Your task to perform on an android device: open a bookmark in the chrome app Image 0: 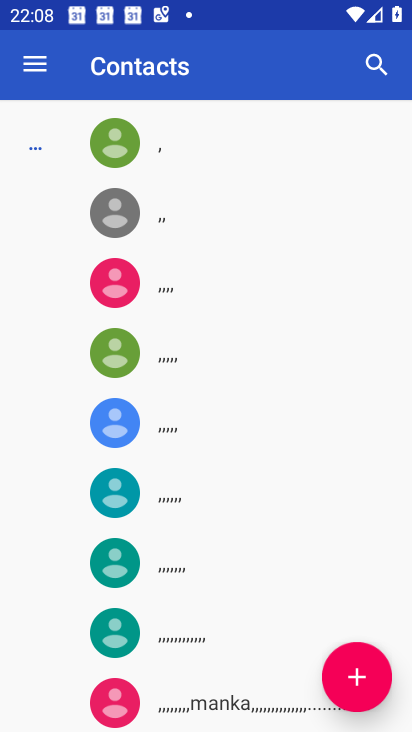
Step 0: press home button
Your task to perform on an android device: open a bookmark in the chrome app Image 1: 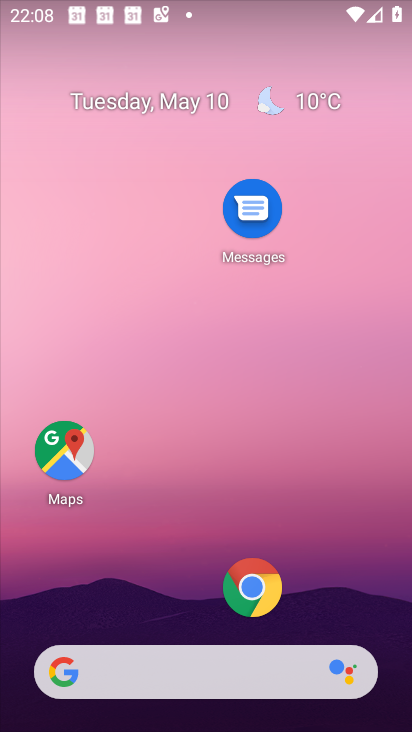
Step 1: click (257, 573)
Your task to perform on an android device: open a bookmark in the chrome app Image 2: 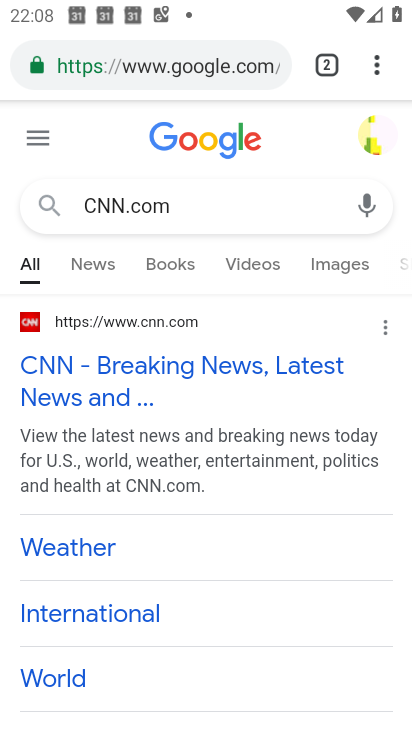
Step 2: click (373, 65)
Your task to perform on an android device: open a bookmark in the chrome app Image 3: 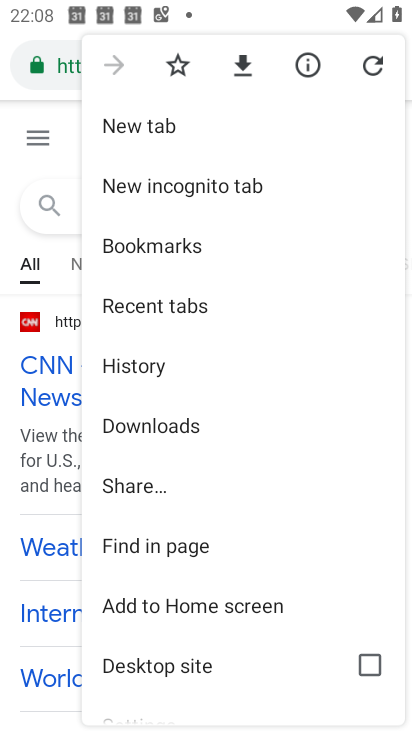
Step 3: click (164, 236)
Your task to perform on an android device: open a bookmark in the chrome app Image 4: 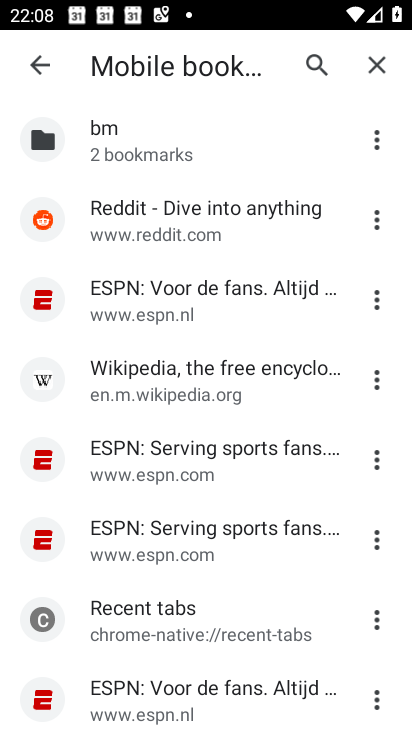
Step 4: click (164, 385)
Your task to perform on an android device: open a bookmark in the chrome app Image 5: 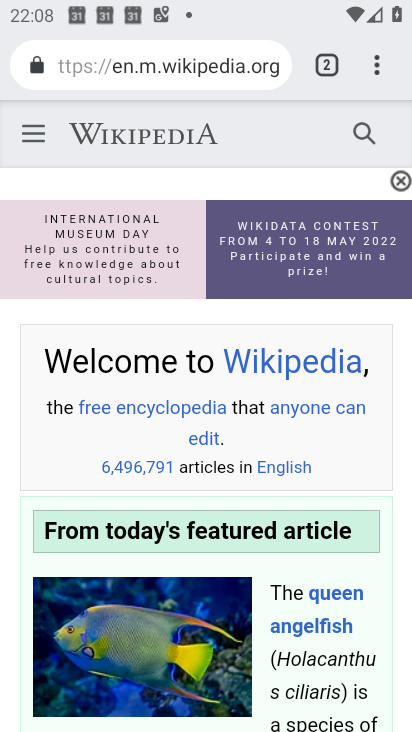
Step 5: task complete